Your task to perform on an android device: uninstall "Yahoo Mail" Image 0: 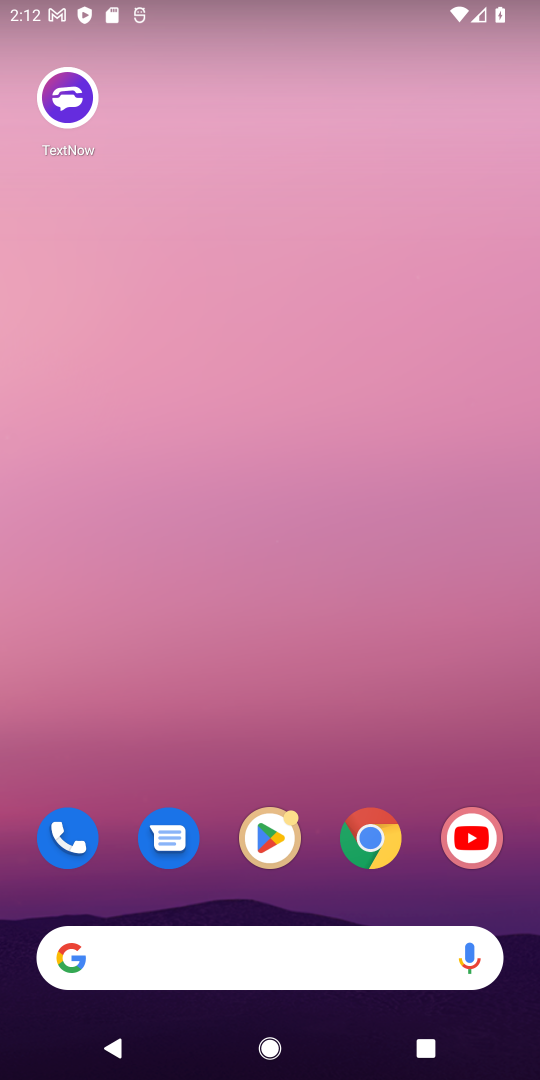
Step 0: click (272, 845)
Your task to perform on an android device: uninstall "Yahoo Mail" Image 1: 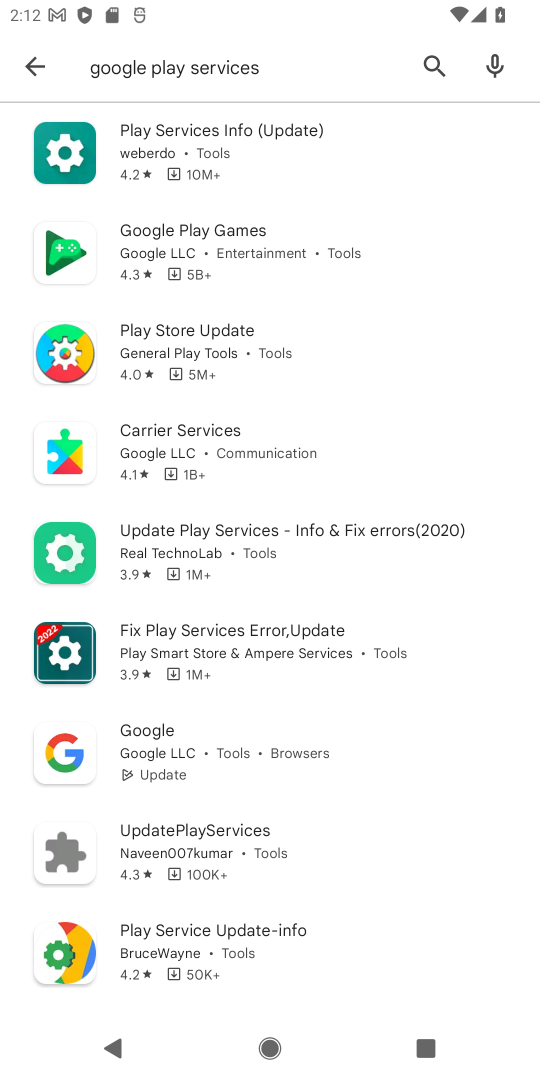
Step 1: click (30, 69)
Your task to perform on an android device: uninstall "Yahoo Mail" Image 2: 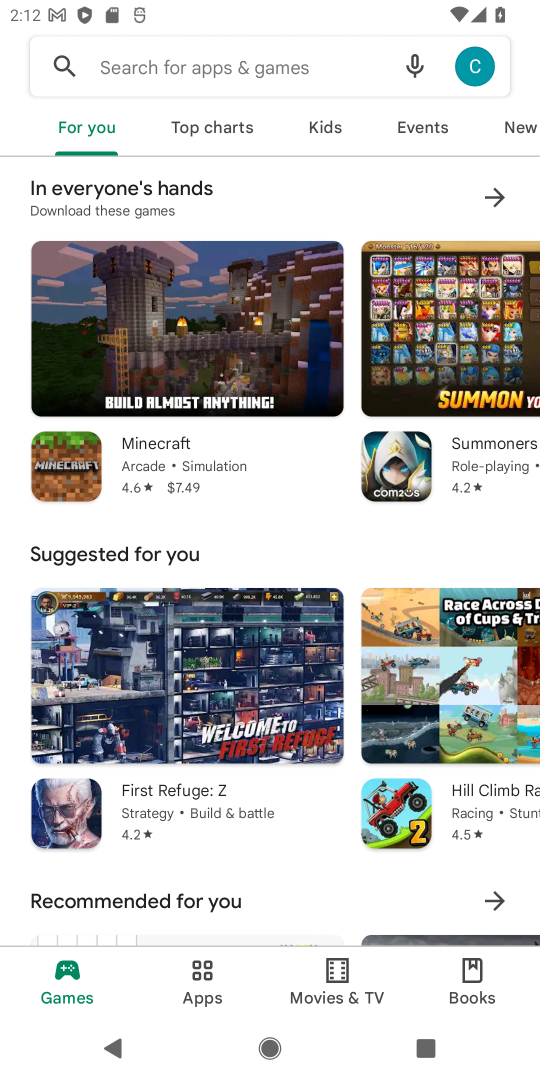
Step 2: click (240, 60)
Your task to perform on an android device: uninstall "Yahoo Mail" Image 3: 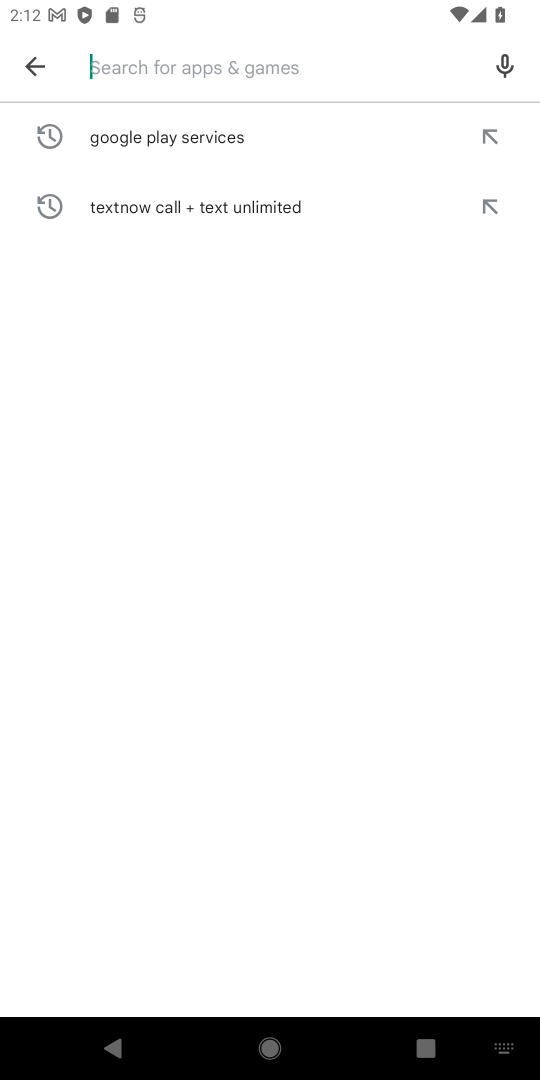
Step 3: type "Yahoo Mail"
Your task to perform on an android device: uninstall "Yahoo Mail" Image 4: 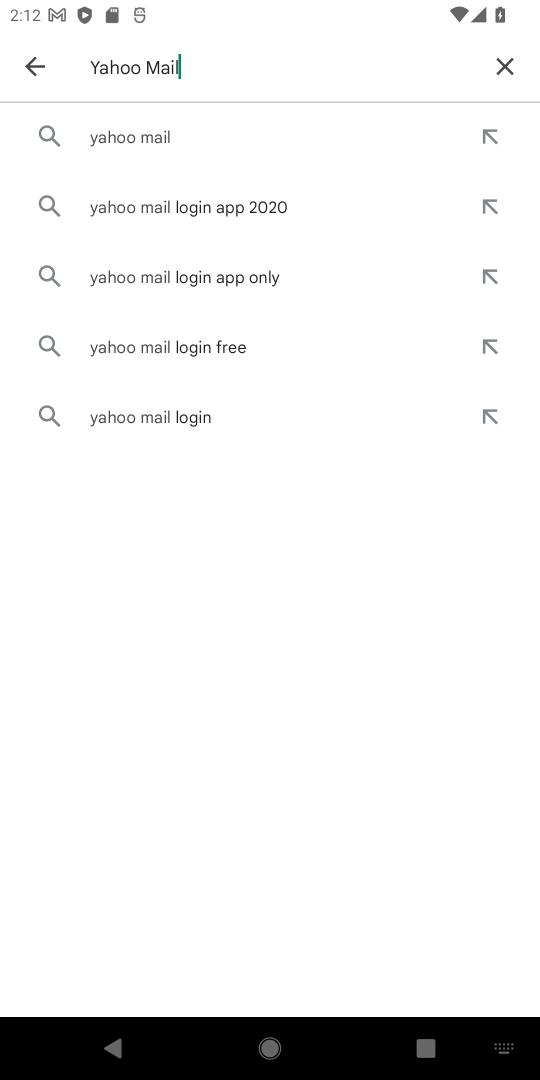
Step 4: click (144, 130)
Your task to perform on an android device: uninstall "Yahoo Mail" Image 5: 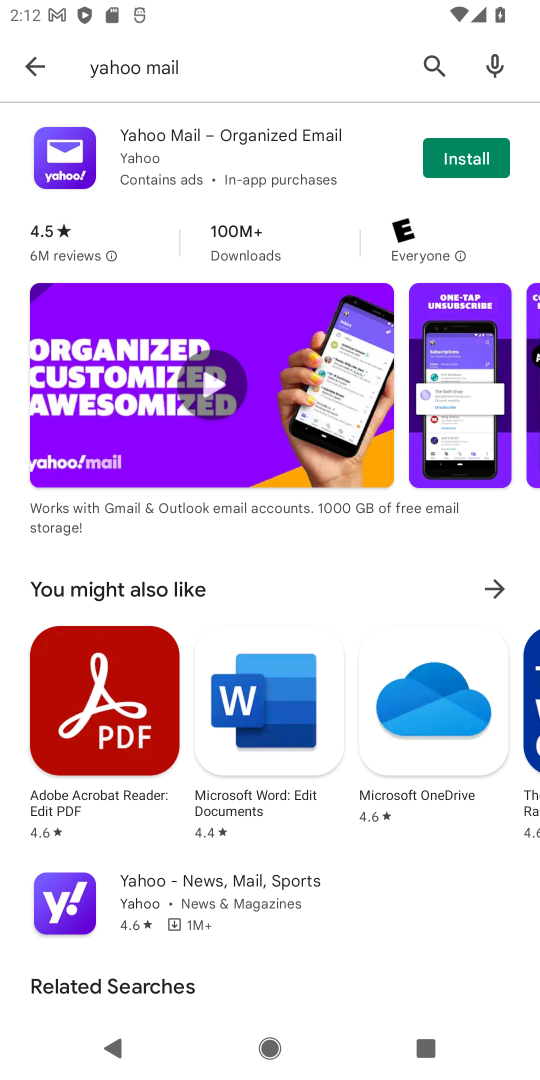
Step 5: task complete